Your task to perform on an android device: turn off sleep mode Image 0: 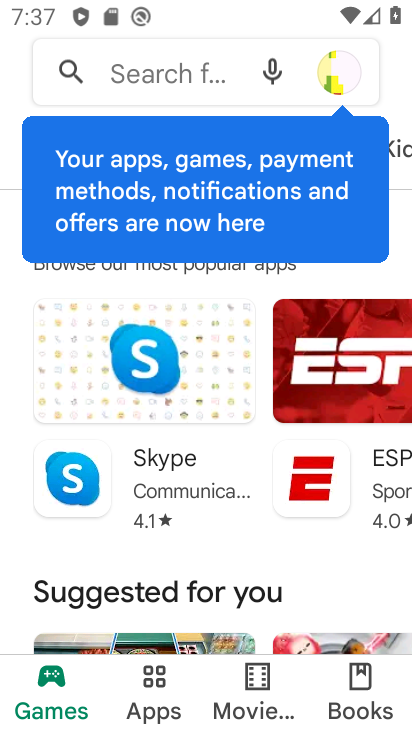
Step 0: press home button
Your task to perform on an android device: turn off sleep mode Image 1: 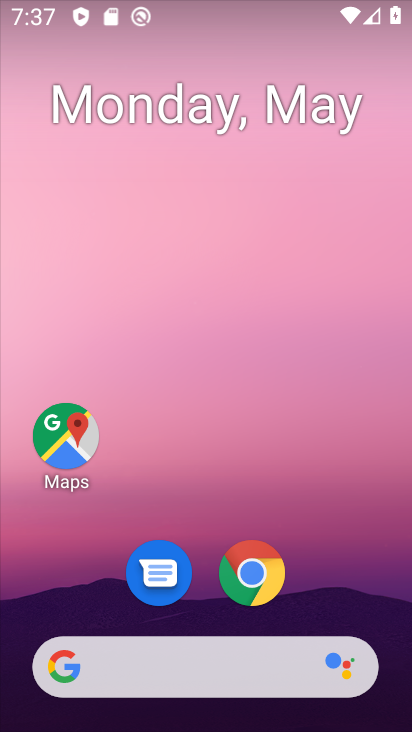
Step 1: click (379, 613)
Your task to perform on an android device: turn off sleep mode Image 2: 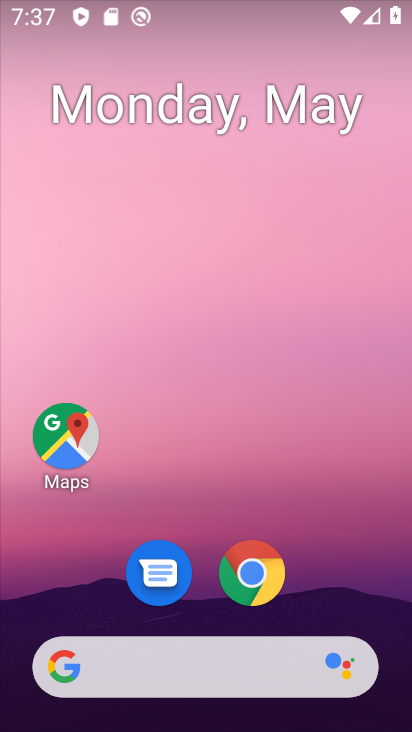
Step 2: drag from (379, 613) to (256, 65)
Your task to perform on an android device: turn off sleep mode Image 3: 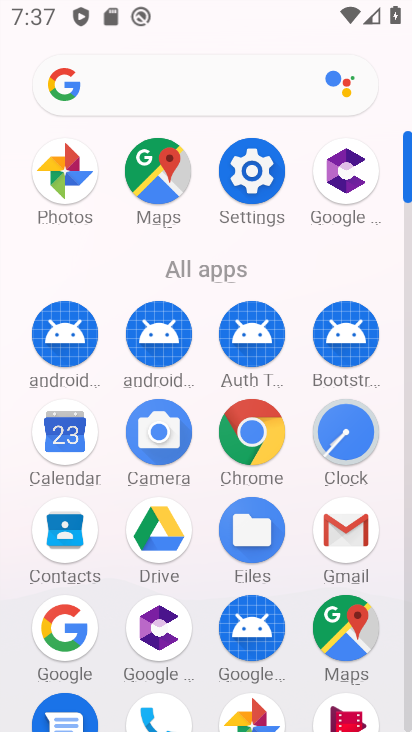
Step 3: click (270, 185)
Your task to perform on an android device: turn off sleep mode Image 4: 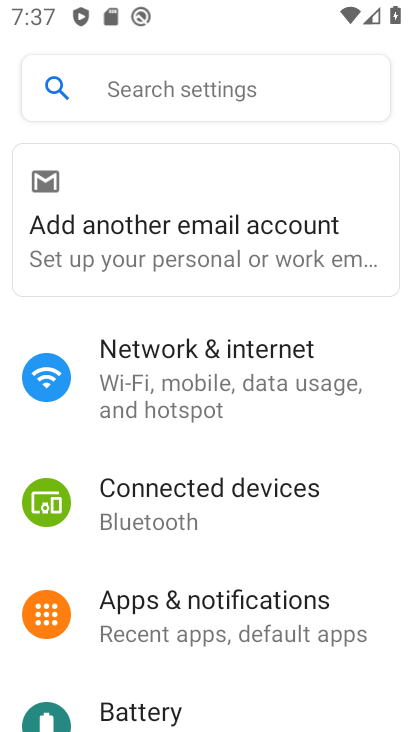
Step 4: drag from (207, 520) to (214, 330)
Your task to perform on an android device: turn off sleep mode Image 5: 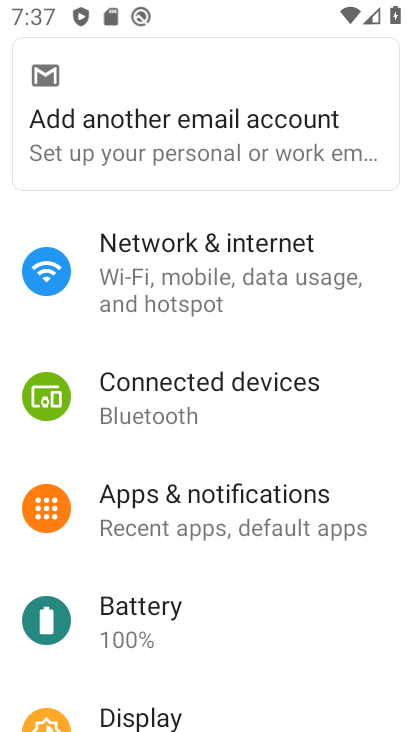
Step 5: click (214, 330)
Your task to perform on an android device: turn off sleep mode Image 6: 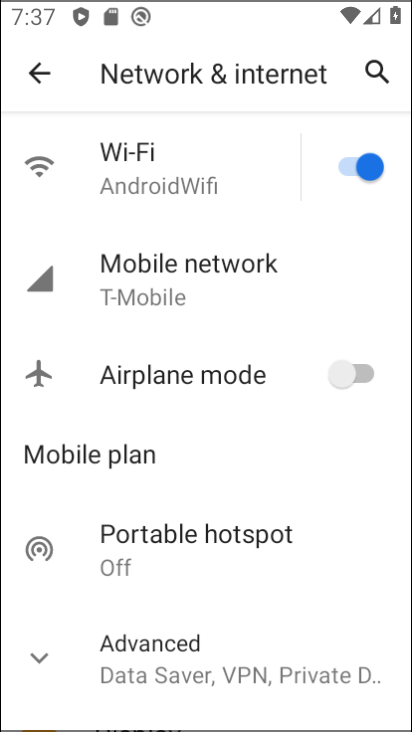
Step 6: drag from (224, 684) to (226, 406)
Your task to perform on an android device: turn off sleep mode Image 7: 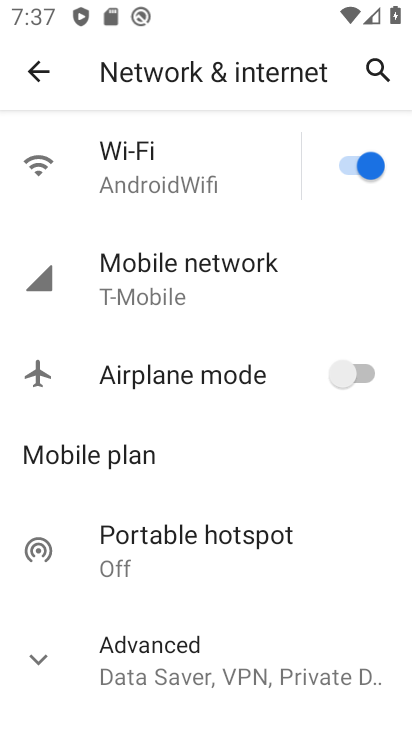
Step 7: click (44, 80)
Your task to perform on an android device: turn off sleep mode Image 8: 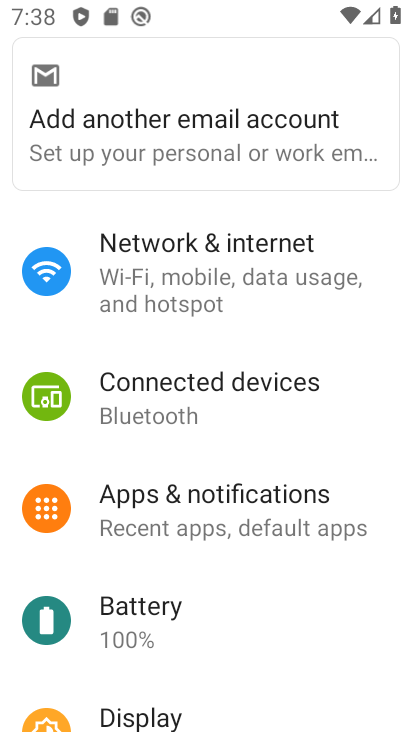
Step 8: drag from (208, 621) to (205, 283)
Your task to perform on an android device: turn off sleep mode Image 9: 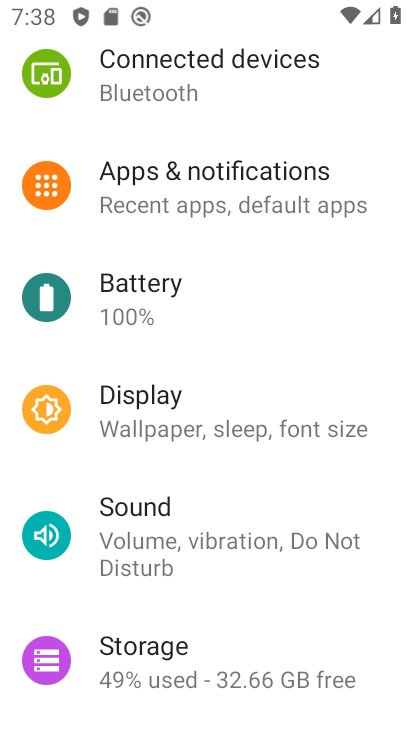
Step 9: click (252, 454)
Your task to perform on an android device: turn off sleep mode Image 10: 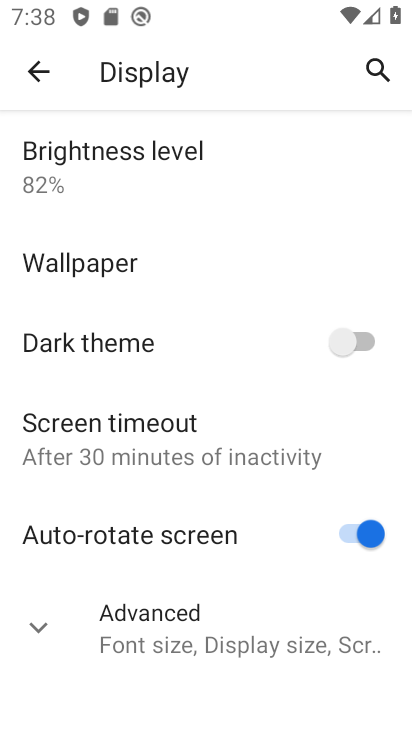
Step 10: task complete